Your task to perform on an android device: Open privacy settings Image 0: 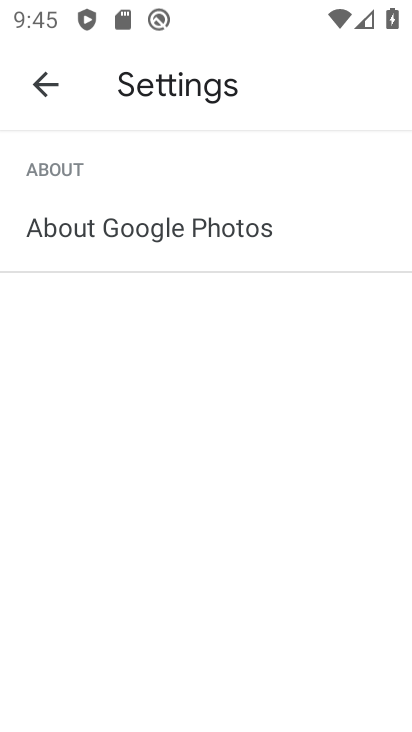
Step 0: press home button
Your task to perform on an android device: Open privacy settings Image 1: 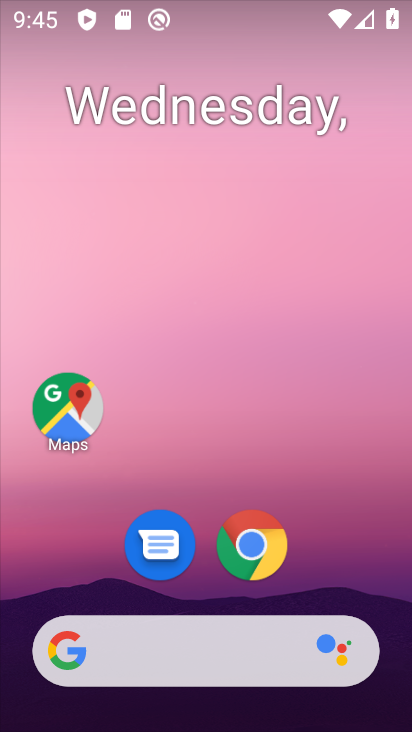
Step 1: drag from (297, 463) to (240, 41)
Your task to perform on an android device: Open privacy settings Image 2: 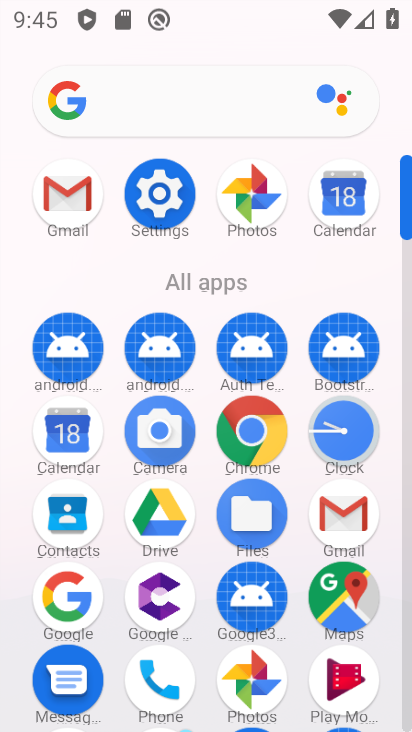
Step 2: click (165, 198)
Your task to perform on an android device: Open privacy settings Image 3: 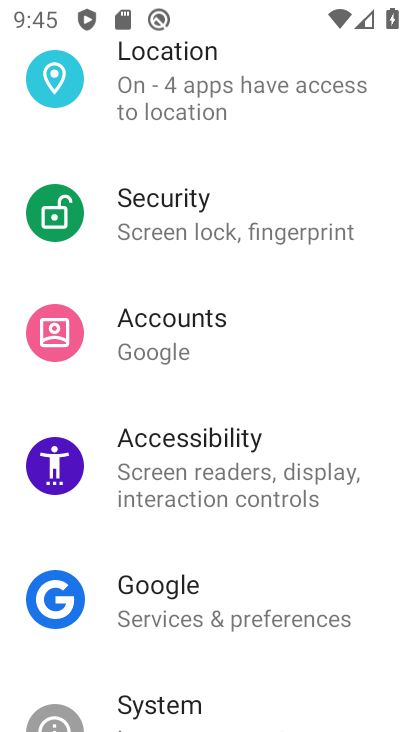
Step 3: drag from (248, 165) to (261, 658)
Your task to perform on an android device: Open privacy settings Image 4: 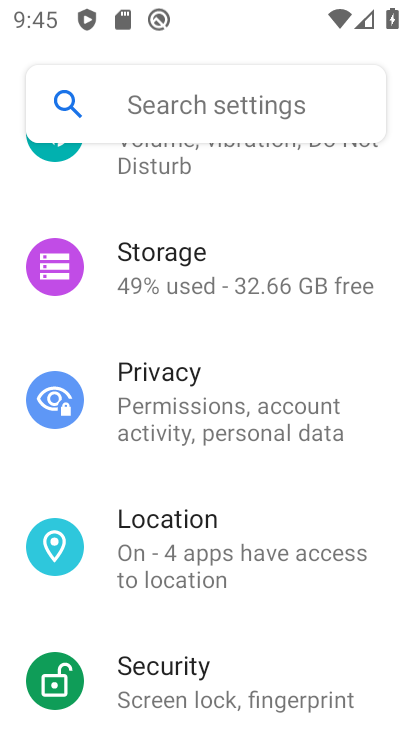
Step 4: click (211, 399)
Your task to perform on an android device: Open privacy settings Image 5: 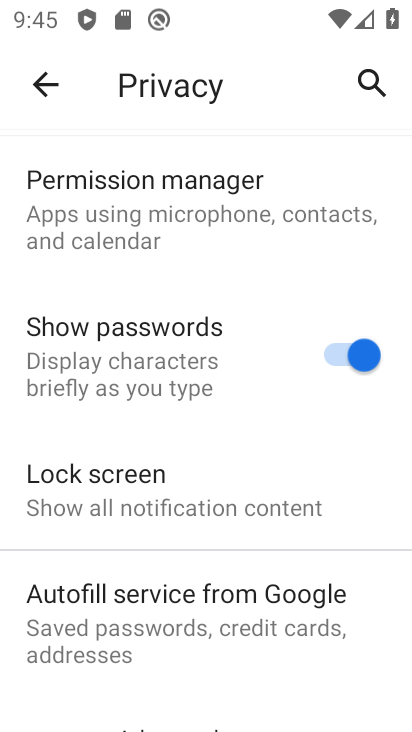
Step 5: task complete